Your task to perform on an android device: open a bookmark in the chrome app Image 0: 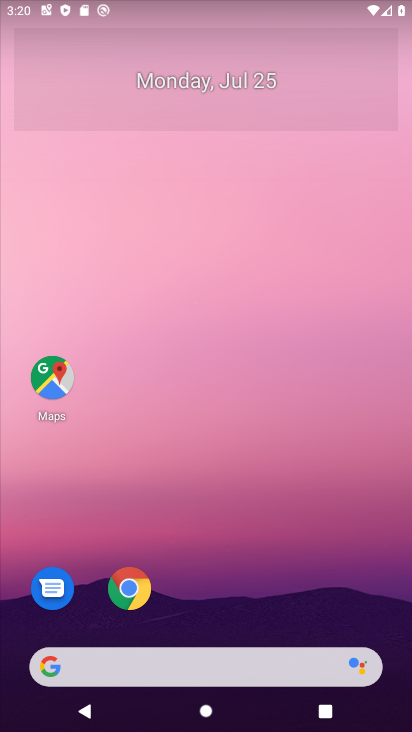
Step 0: drag from (282, 440) to (272, 6)
Your task to perform on an android device: open a bookmark in the chrome app Image 1: 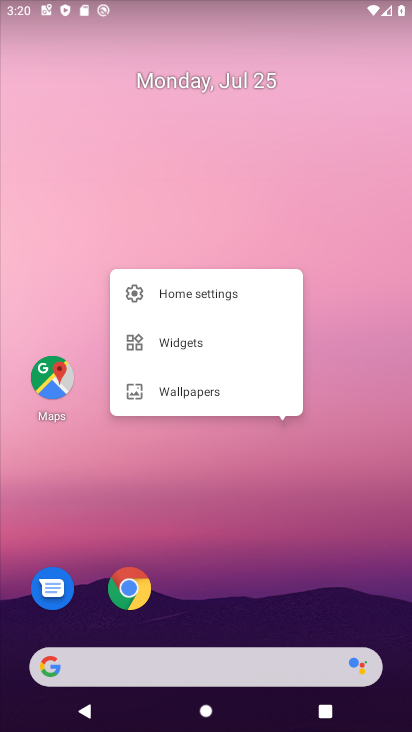
Step 1: click (357, 598)
Your task to perform on an android device: open a bookmark in the chrome app Image 2: 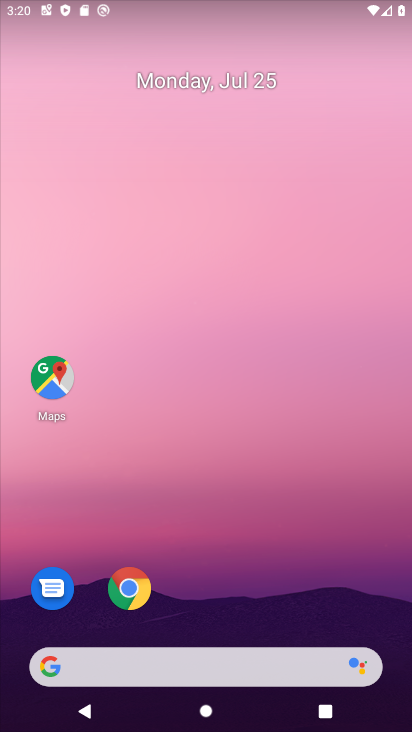
Step 2: drag from (284, 616) to (281, 164)
Your task to perform on an android device: open a bookmark in the chrome app Image 3: 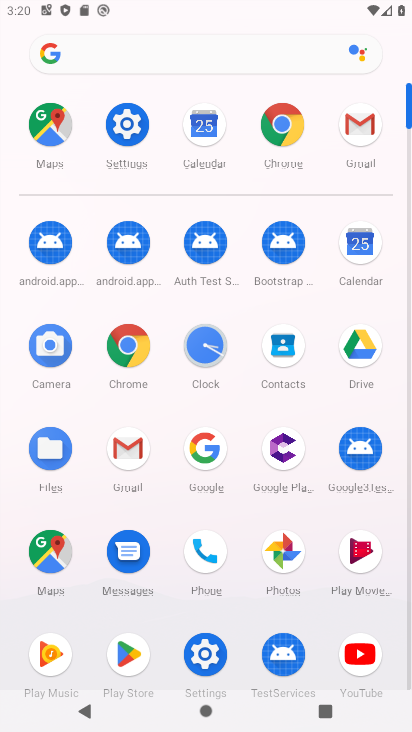
Step 3: click (285, 121)
Your task to perform on an android device: open a bookmark in the chrome app Image 4: 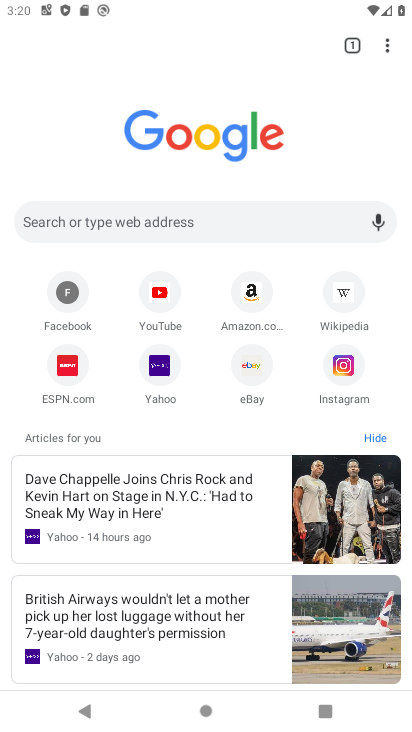
Step 4: drag from (387, 42) to (276, 177)
Your task to perform on an android device: open a bookmark in the chrome app Image 5: 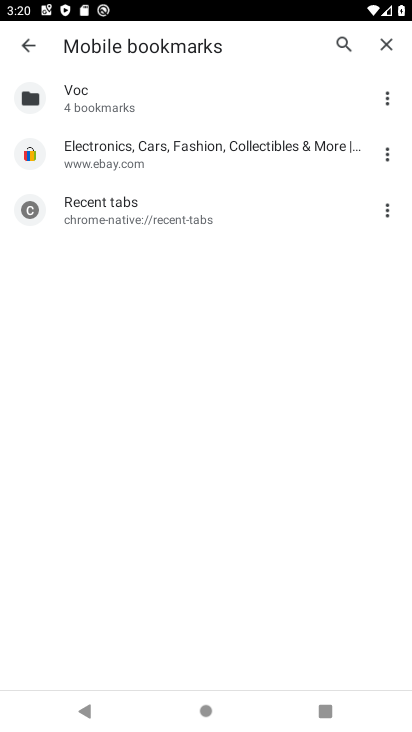
Step 5: click (260, 153)
Your task to perform on an android device: open a bookmark in the chrome app Image 6: 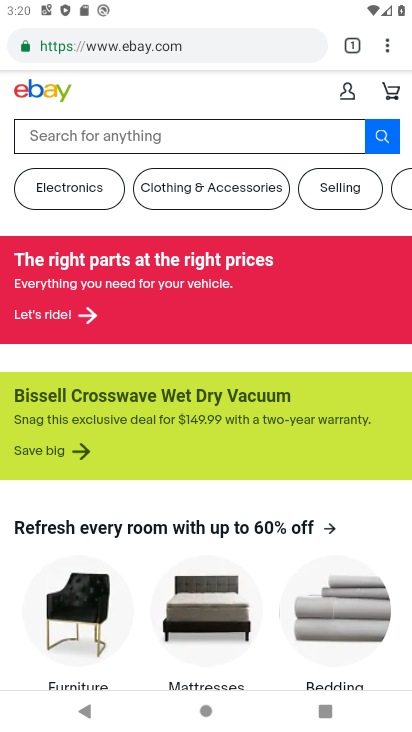
Step 6: task complete